Your task to perform on an android device: find which apps use the phone's location Image 0: 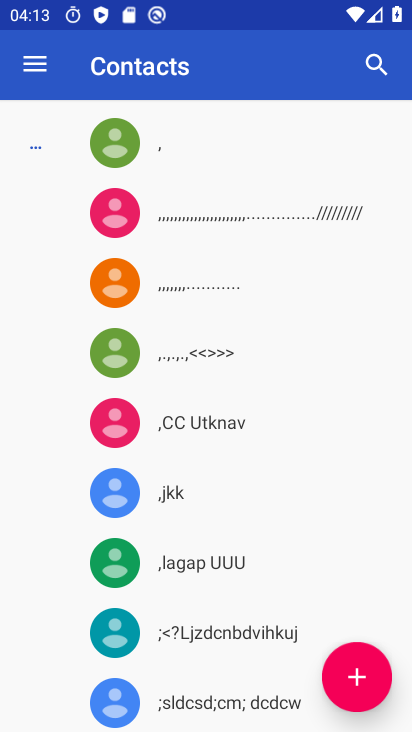
Step 0: press home button
Your task to perform on an android device: find which apps use the phone's location Image 1: 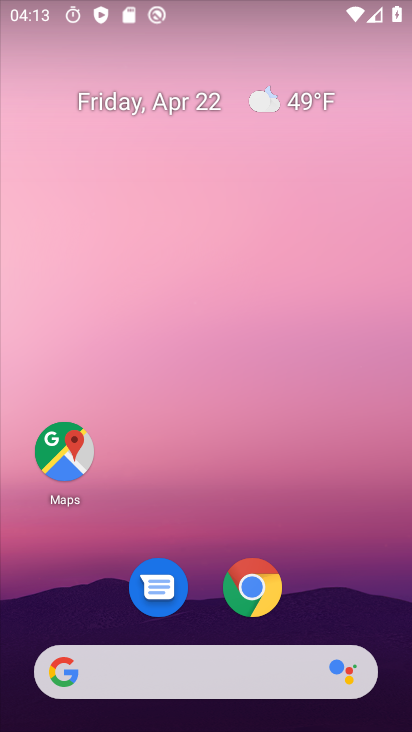
Step 1: drag from (342, 609) to (348, 2)
Your task to perform on an android device: find which apps use the phone's location Image 2: 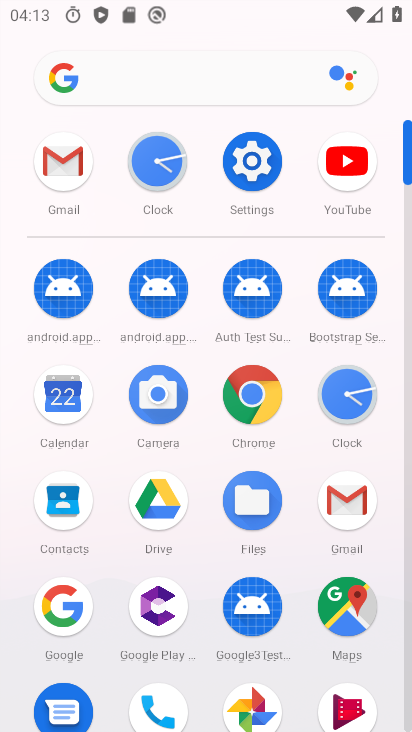
Step 2: click (246, 173)
Your task to perform on an android device: find which apps use the phone's location Image 3: 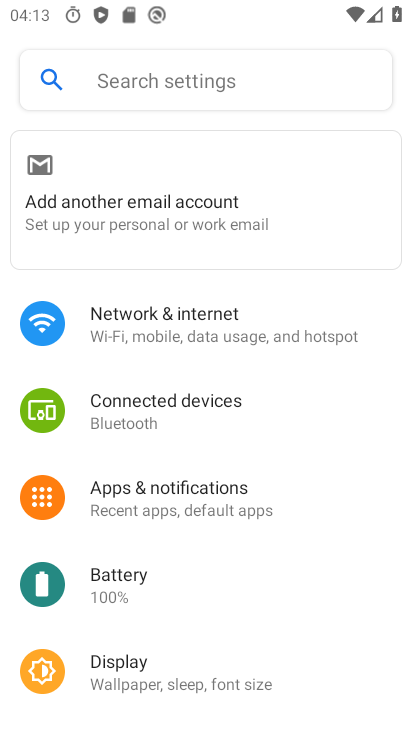
Step 3: drag from (364, 585) to (338, 156)
Your task to perform on an android device: find which apps use the phone's location Image 4: 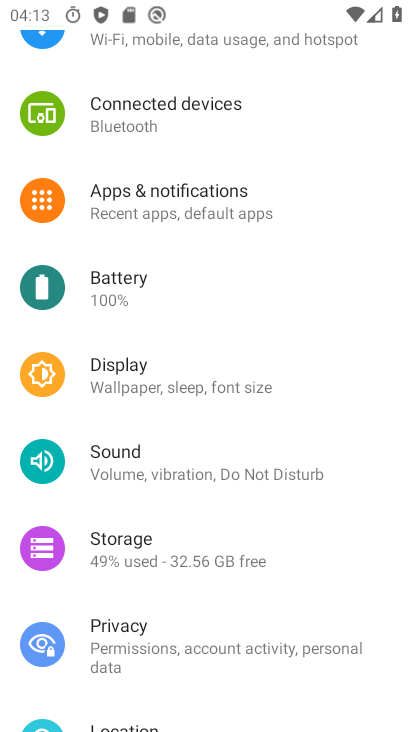
Step 4: drag from (287, 558) to (298, 246)
Your task to perform on an android device: find which apps use the phone's location Image 5: 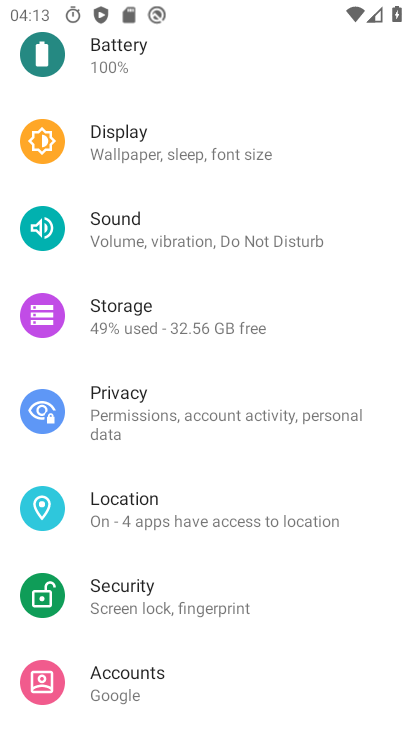
Step 5: click (130, 522)
Your task to perform on an android device: find which apps use the phone's location Image 6: 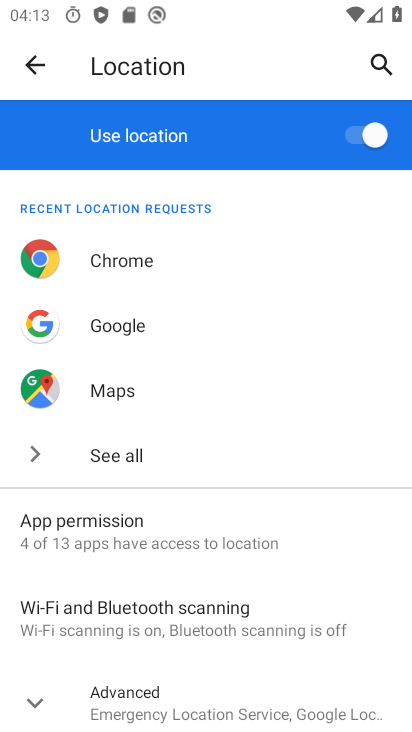
Step 6: drag from (237, 581) to (214, 377)
Your task to perform on an android device: find which apps use the phone's location Image 7: 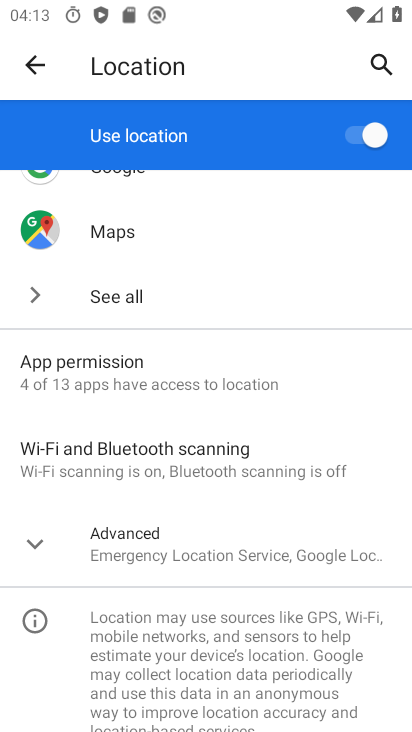
Step 7: click (51, 385)
Your task to perform on an android device: find which apps use the phone's location Image 8: 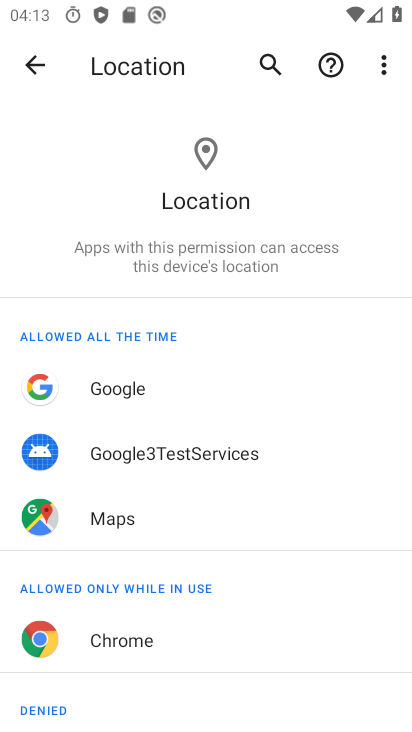
Step 8: task complete